Your task to perform on an android device: Open internet settings Image 0: 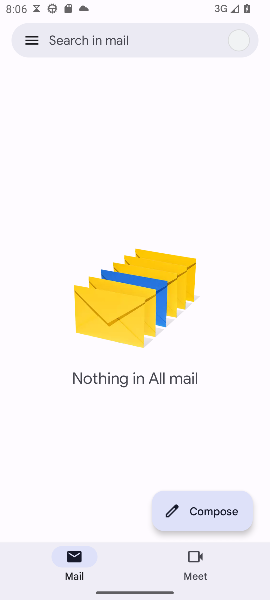
Step 0: press home button
Your task to perform on an android device: Open internet settings Image 1: 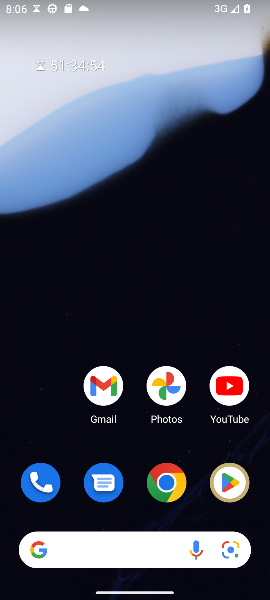
Step 1: drag from (56, 445) to (144, 20)
Your task to perform on an android device: Open internet settings Image 2: 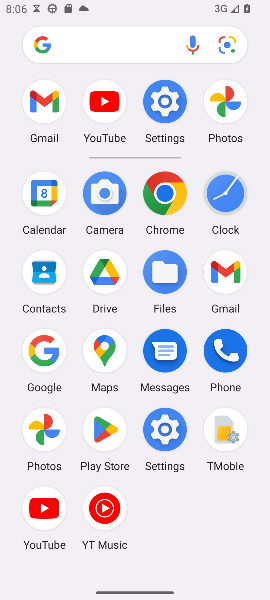
Step 2: click (173, 100)
Your task to perform on an android device: Open internet settings Image 3: 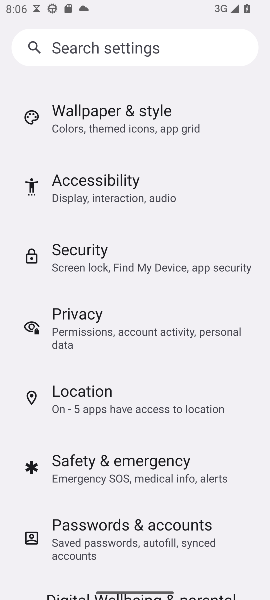
Step 3: drag from (166, 107) to (44, 478)
Your task to perform on an android device: Open internet settings Image 4: 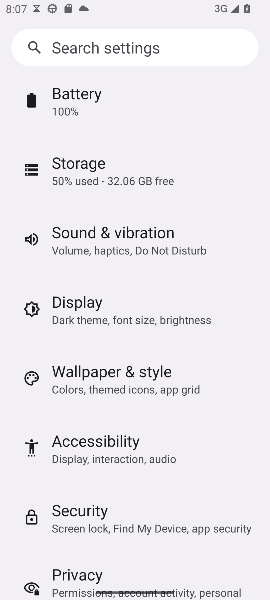
Step 4: drag from (89, 133) to (44, 445)
Your task to perform on an android device: Open internet settings Image 5: 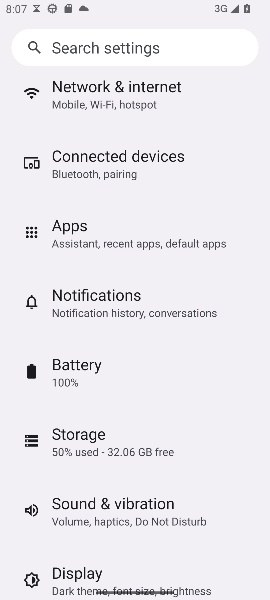
Step 5: click (115, 111)
Your task to perform on an android device: Open internet settings Image 6: 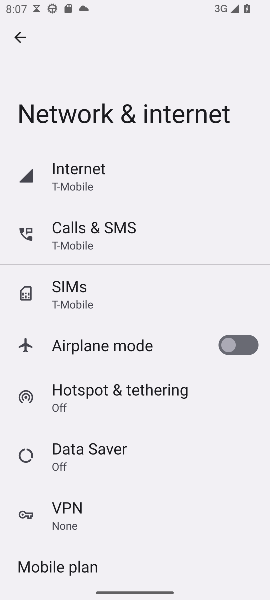
Step 6: click (48, 185)
Your task to perform on an android device: Open internet settings Image 7: 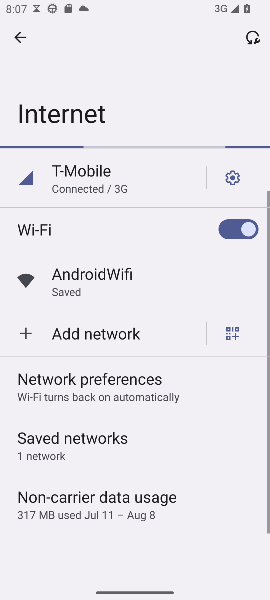
Step 7: task complete